Your task to perform on an android device: install app "Google Docs" Image 0: 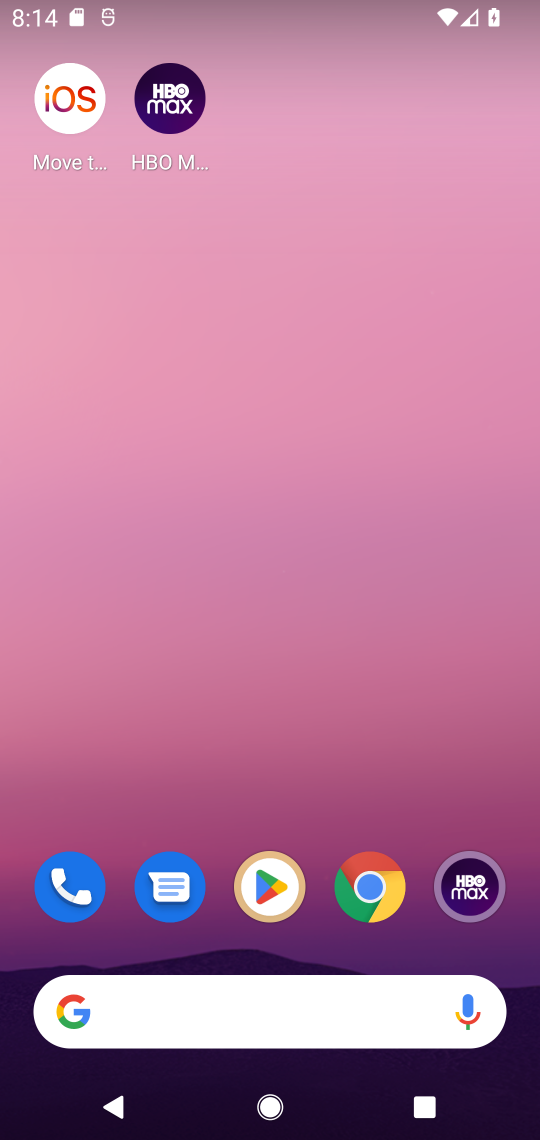
Step 0: click (278, 892)
Your task to perform on an android device: install app "Google Docs" Image 1: 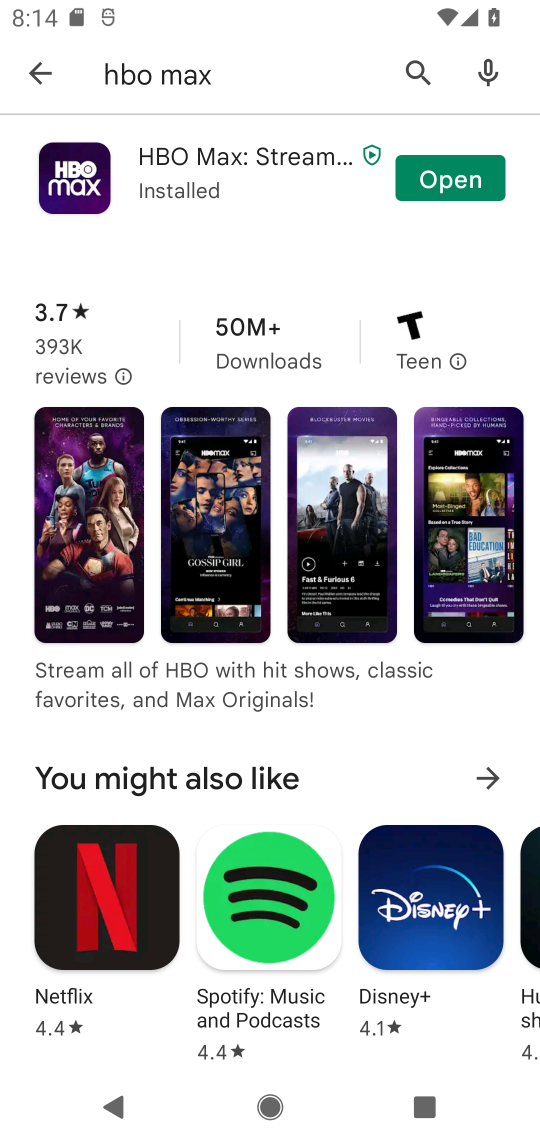
Step 1: click (414, 95)
Your task to perform on an android device: install app "Google Docs" Image 2: 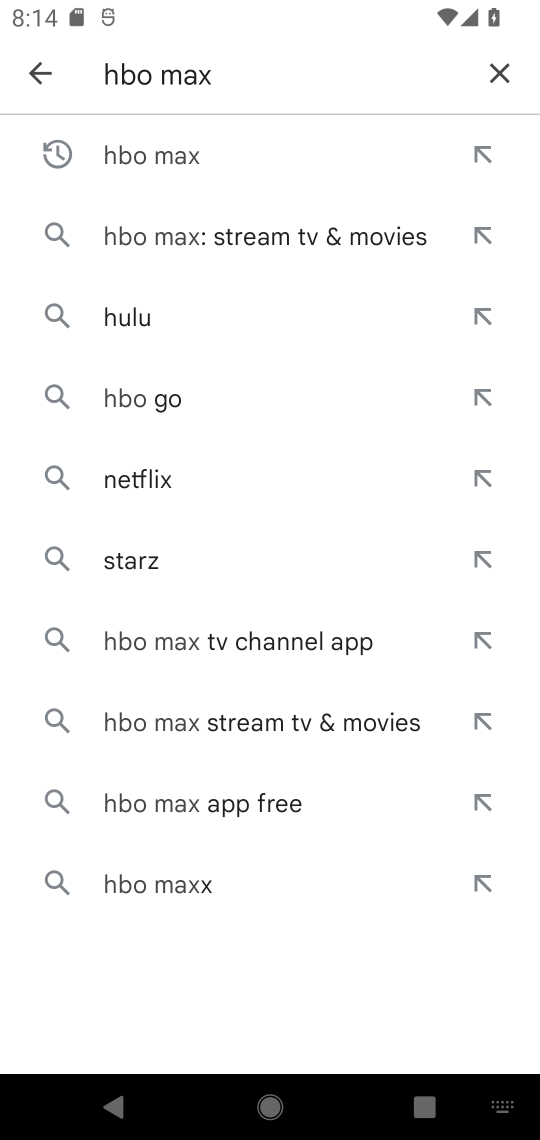
Step 2: click (512, 84)
Your task to perform on an android device: install app "Google Docs" Image 3: 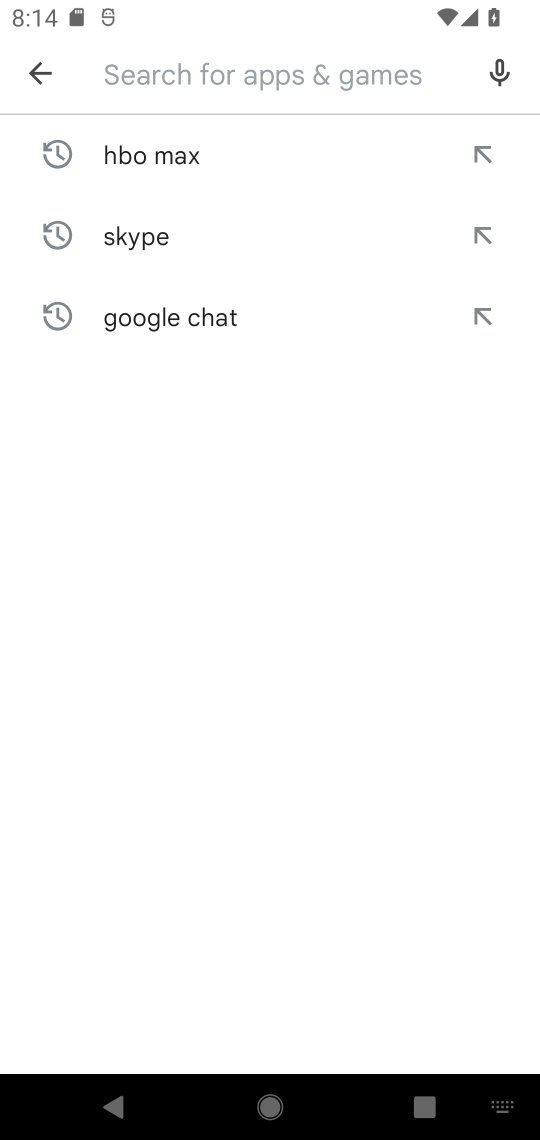
Step 3: type "google doc"
Your task to perform on an android device: install app "Google Docs" Image 4: 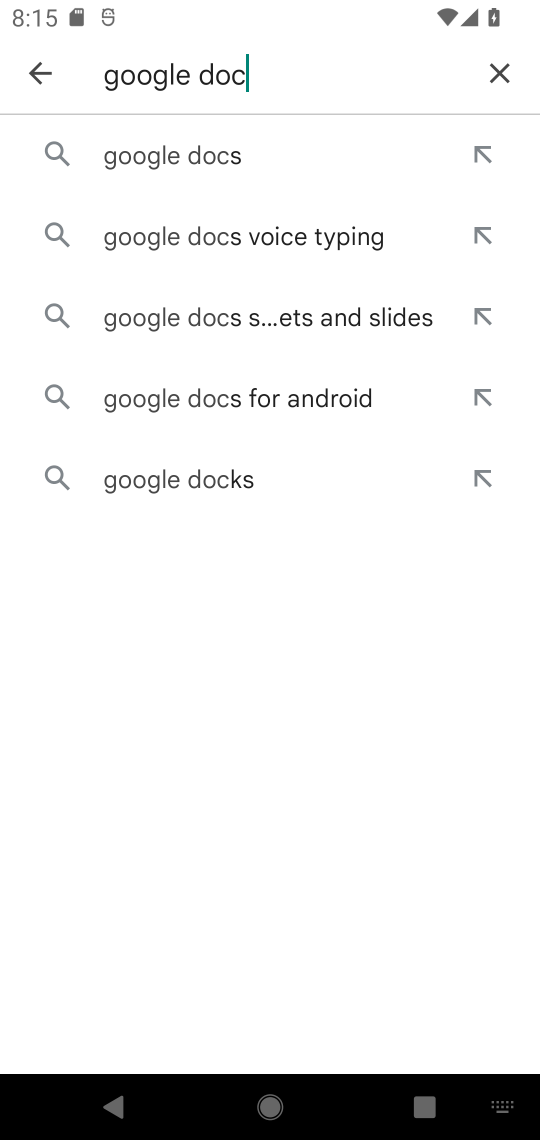
Step 4: click (323, 142)
Your task to perform on an android device: install app "Google Docs" Image 5: 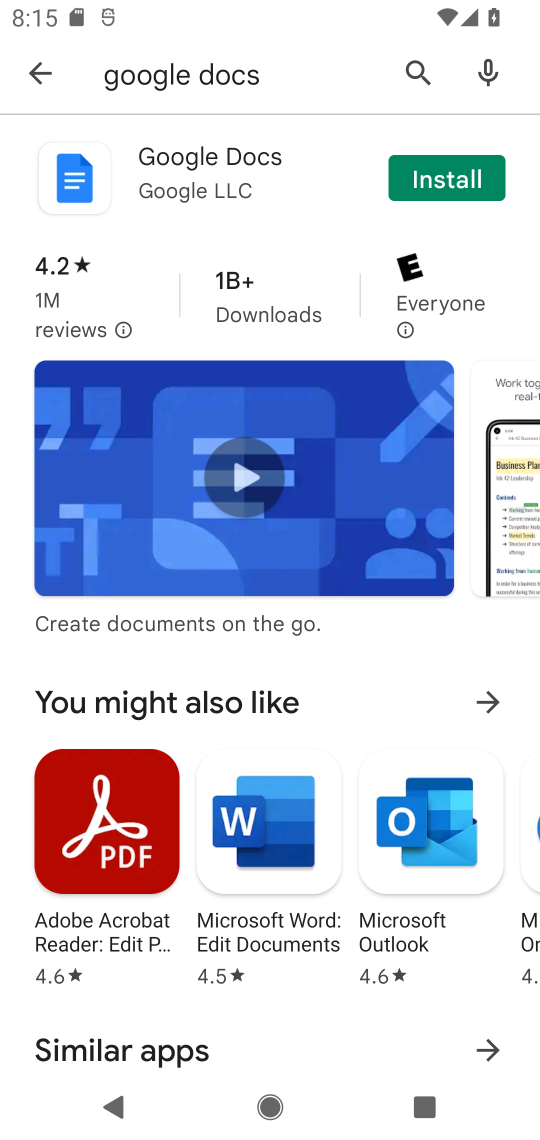
Step 5: click (423, 174)
Your task to perform on an android device: install app "Google Docs" Image 6: 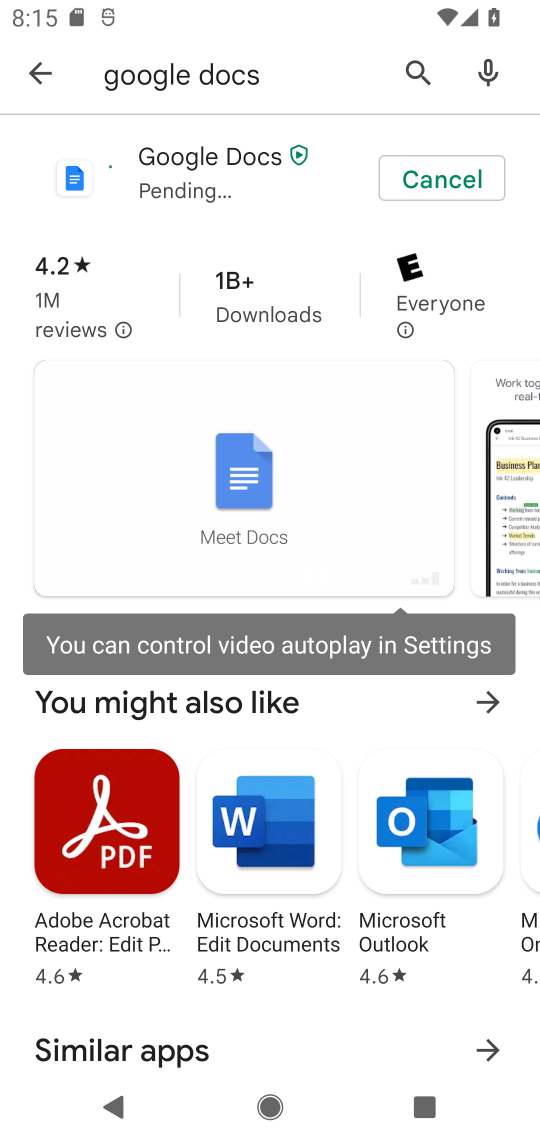
Step 6: task complete